Your task to perform on an android device: toggle pop-ups in chrome Image 0: 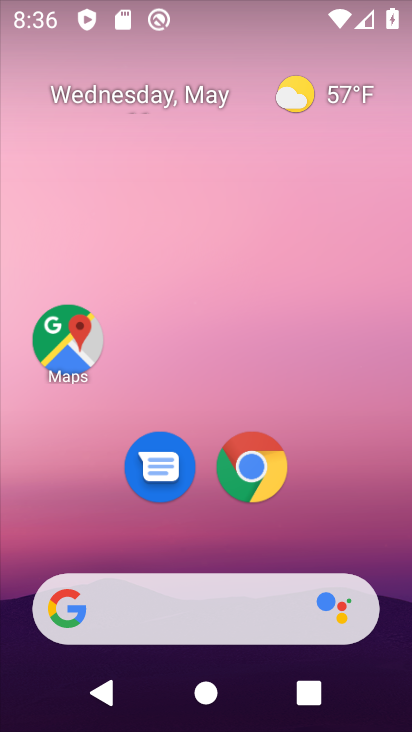
Step 0: drag from (407, 615) to (151, 175)
Your task to perform on an android device: toggle pop-ups in chrome Image 1: 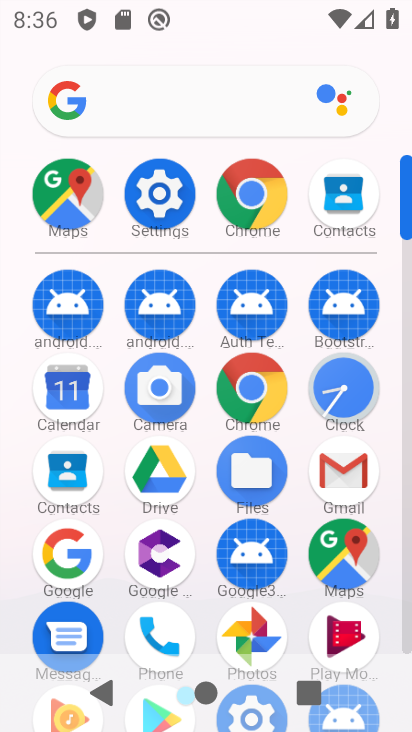
Step 1: click (238, 205)
Your task to perform on an android device: toggle pop-ups in chrome Image 2: 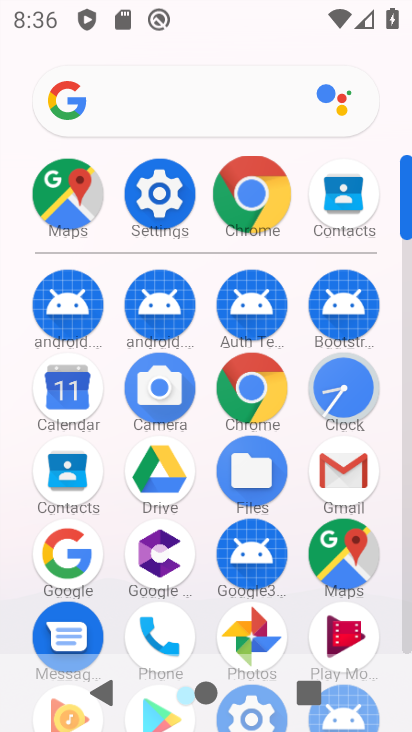
Step 2: click (236, 197)
Your task to perform on an android device: toggle pop-ups in chrome Image 3: 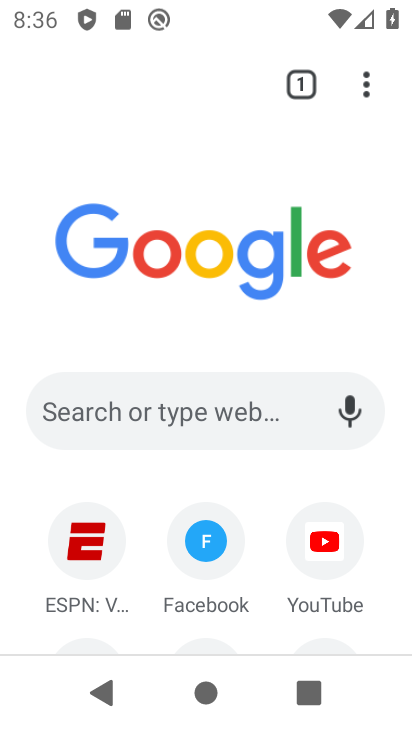
Step 3: drag from (359, 79) to (87, 515)
Your task to perform on an android device: toggle pop-ups in chrome Image 4: 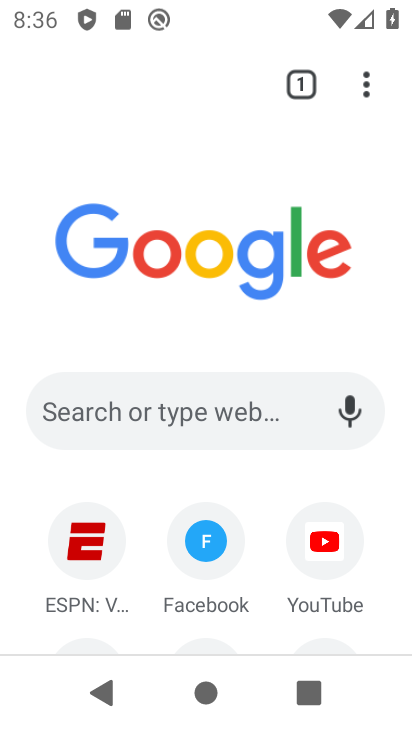
Step 4: click (103, 513)
Your task to perform on an android device: toggle pop-ups in chrome Image 5: 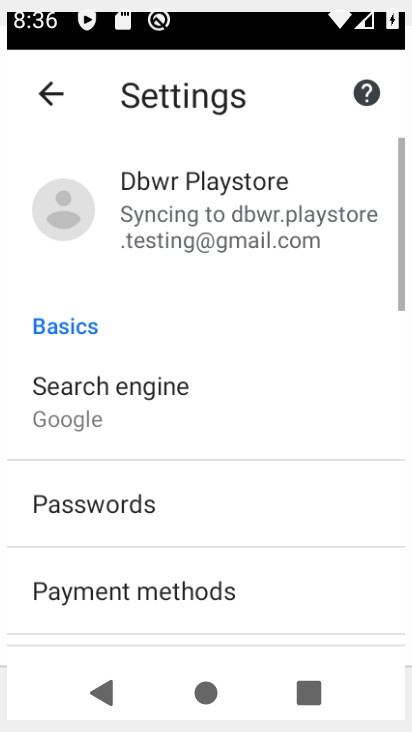
Step 5: click (104, 513)
Your task to perform on an android device: toggle pop-ups in chrome Image 6: 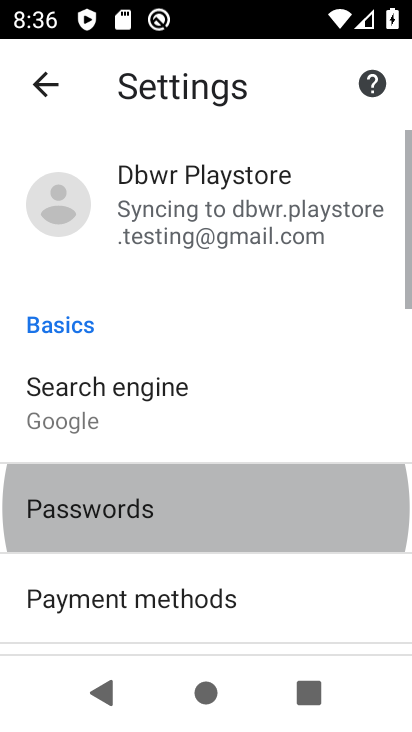
Step 6: click (104, 513)
Your task to perform on an android device: toggle pop-ups in chrome Image 7: 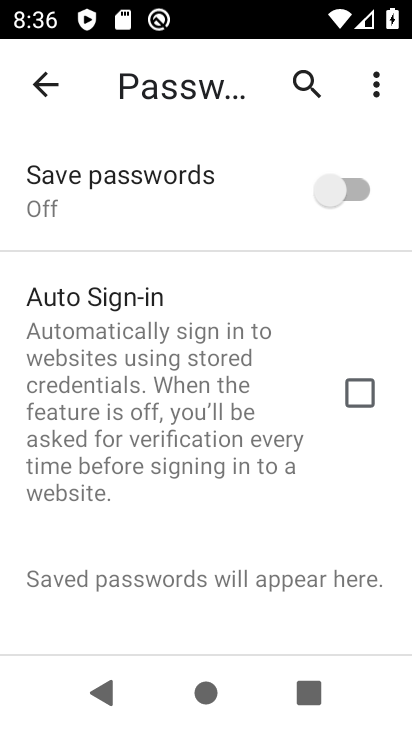
Step 7: click (40, 81)
Your task to perform on an android device: toggle pop-ups in chrome Image 8: 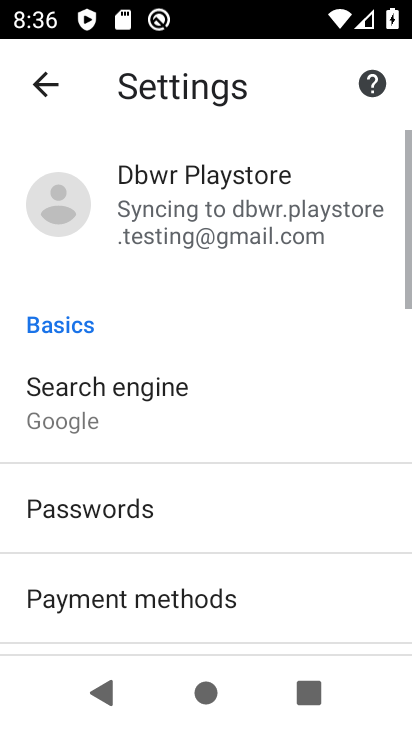
Step 8: drag from (198, 481) to (162, 138)
Your task to perform on an android device: toggle pop-ups in chrome Image 9: 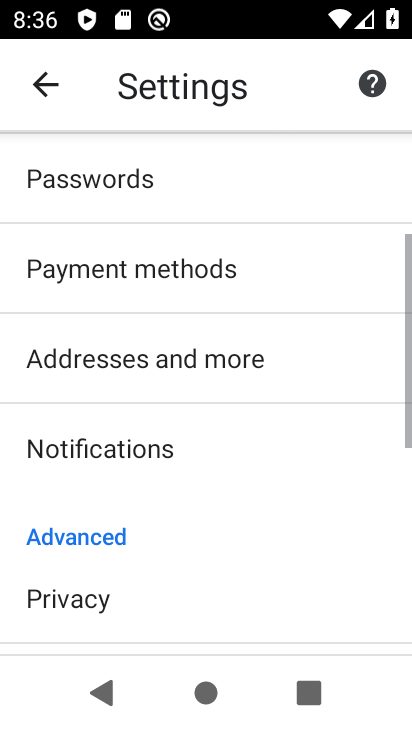
Step 9: drag from (230, 444) to (297, 212)
Your task to perform on an android device: toggle pop-ups in chrome Image 10: 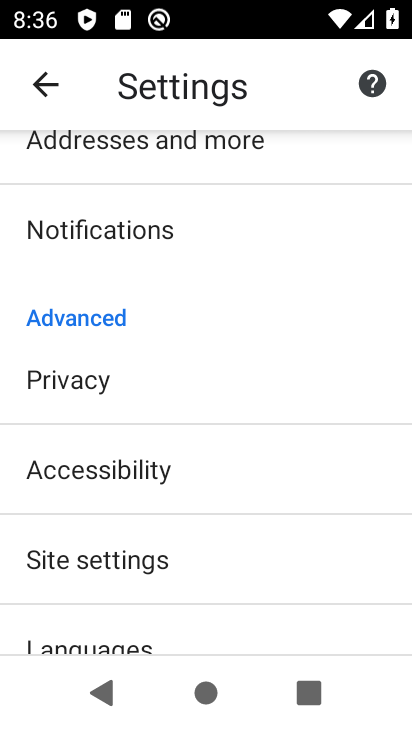
Step 10: drag from (137, 559) to (126, 327)
Your task to perform on an android device: toggle pop-ups in chrome Image 11: 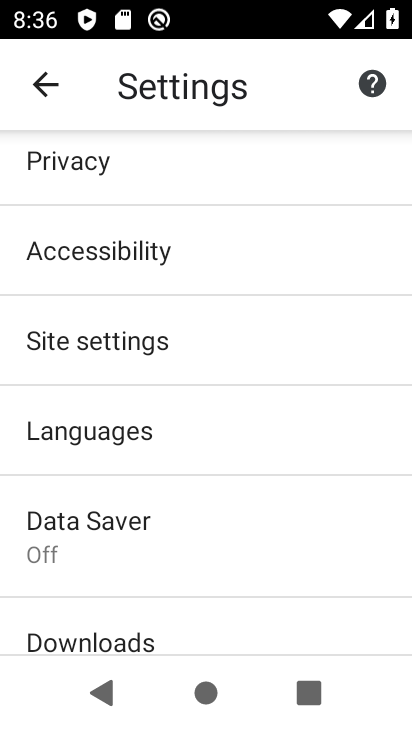
Step 11: drag from (129, 542) to (111, 176)
Your task to perform on an android device: toggle pop-ups in chrome Image 12: 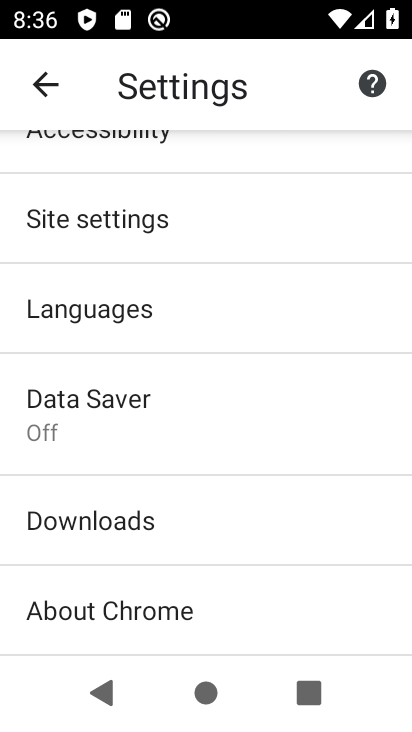
Step 12: click (75, 220)
Your task to perform on an android device: toggle pop-ups in chrome Image 13: 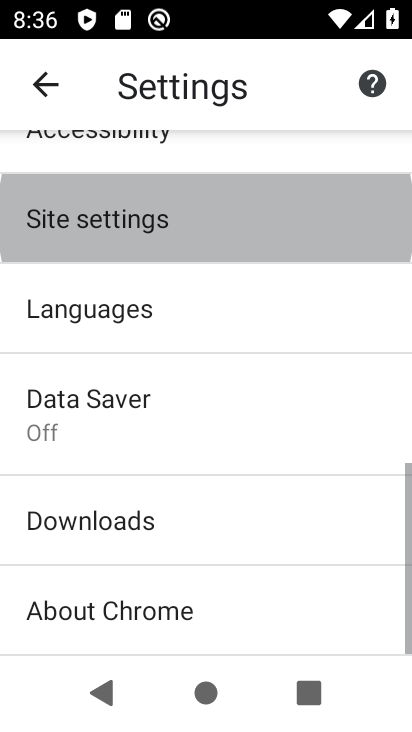
Step 13: click (76, 213)
Your task to perform on an android device: toggle pop-ups in chrome Image 14: 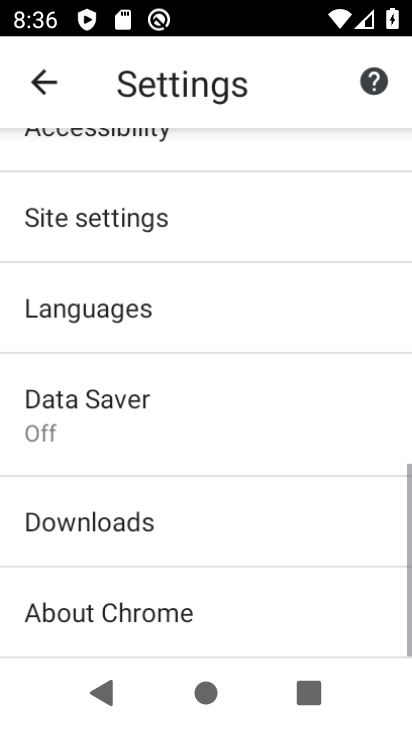
Step 14: click (76, 213)
Your task to perform on an android device: toggle pop-ups in chrome Image 15: 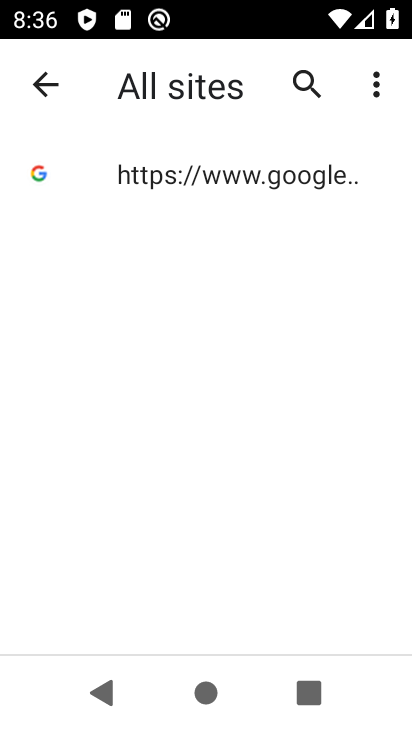
Step 15: click (43, 84)
Your task to perform on an android device: toggle pop-ups in chrome Image 16: 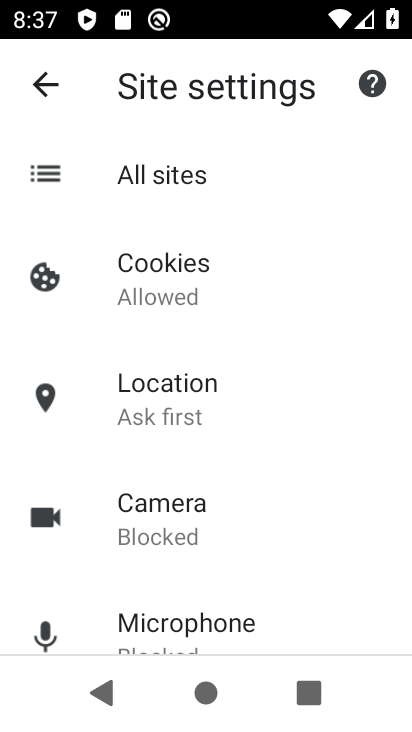
Step 16: drag from (248, 464) to (221, 89)
Your task to perform on an android device: toggle pop-ups in chrome Image 17: 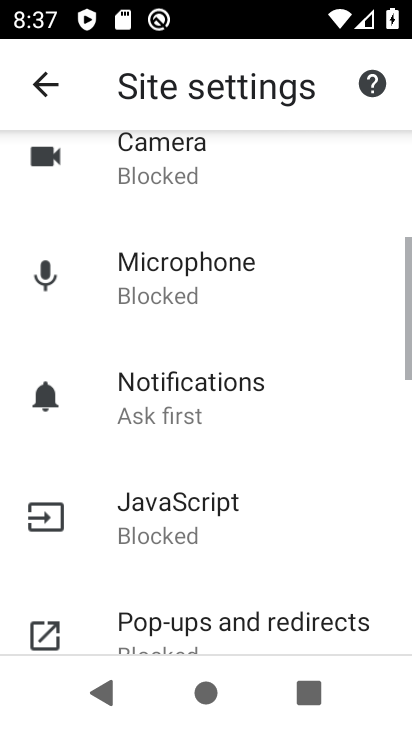
Step 17: drag from (280, 479) to (220, 167)
Your task to perform on an android device: toggle pop-ups in chrome Image 18: 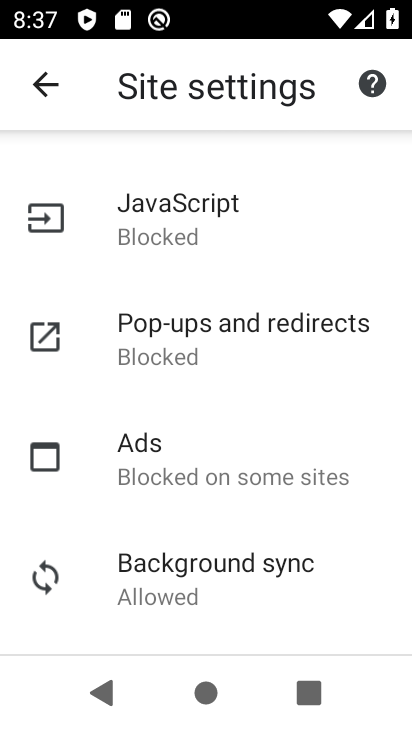
Step 18: drag from (221, 476) to (140, 220)
Your task to perform on an android device: toggle pop-ups in chrome Image 19: 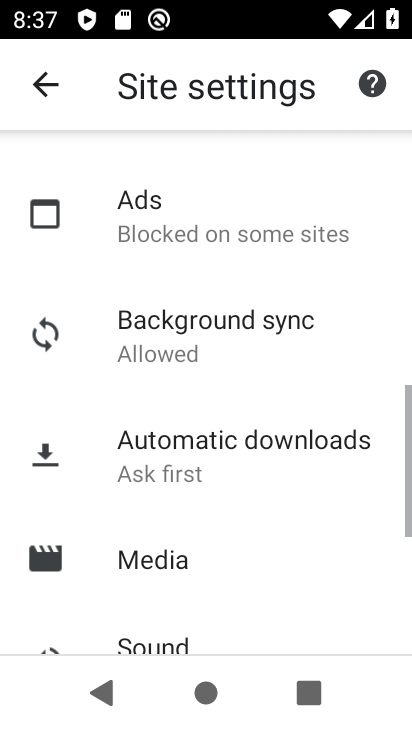
Step 19: drag from (187, 214) to (240, 600)
Your task to perform on an android device: toggle pop-ups in chrome Image 20: 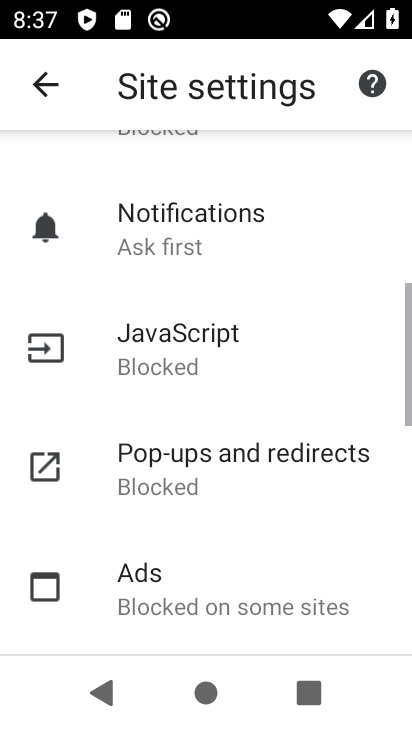
Step 20: drag from (171, 348) to (264, 596)
Your task to perform on an android device: toggle pop-ups in chrome Image 21: 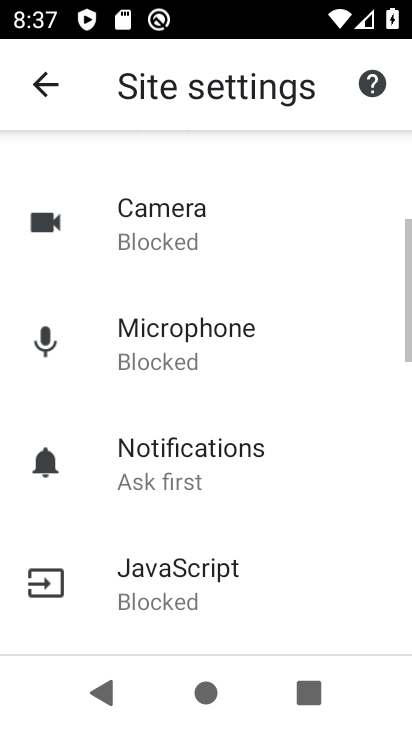
Step 21: drag from (213, 381) to (260, 593)
Your task to perform on an android device: toggle pop-ups in chrome Image 22: 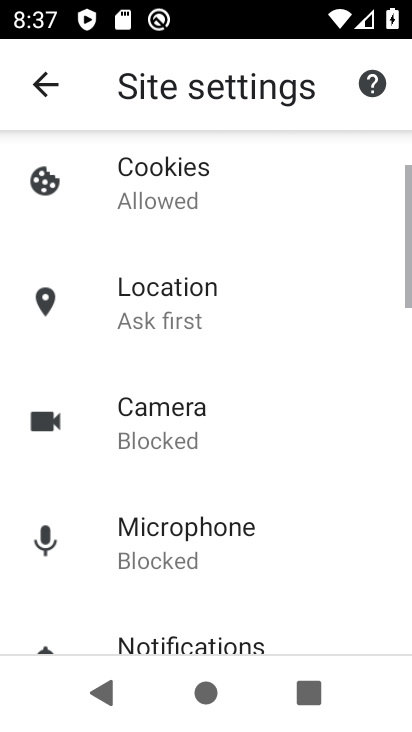
Step 22: drag from (258, 231) to (325, 444)
Your task to perform on an android device: toggle pop-ups in chrome Image 23: 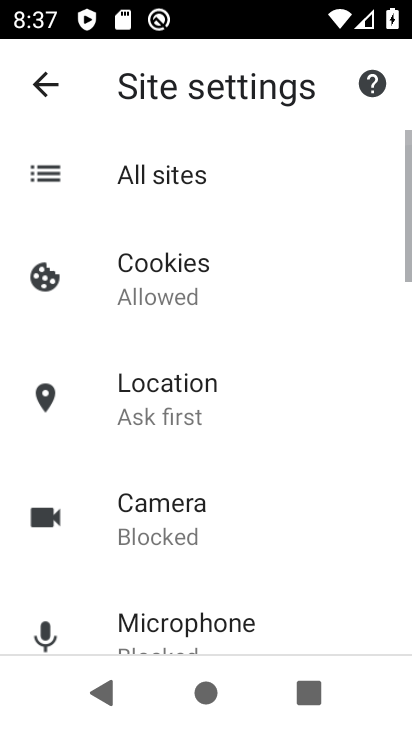
Step 23: click (332, 518)
Your task to perform on an android device: toggle pop-ups in chrome Image 24: 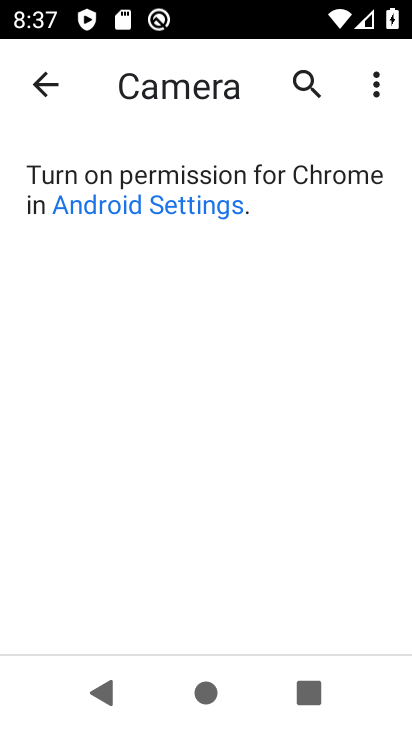
Step 24: click (38, 78)
Your task to perform on an android device: toggle pop-ups in chrome Image 25: 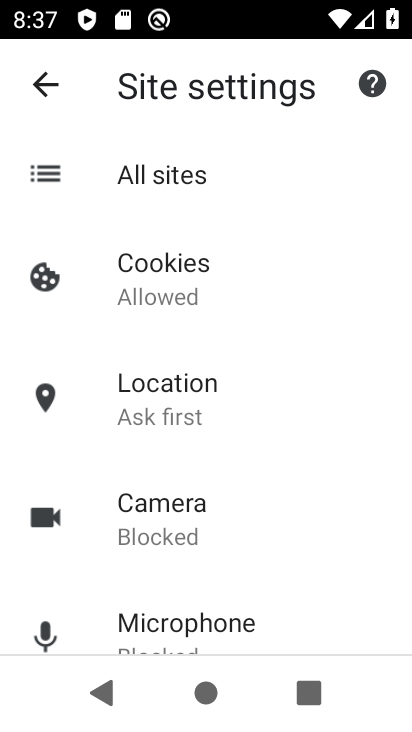
Step 25: drag from (210, 558) to (208, 434)
Your task to perform on an android device: toggle pop-ups in chrome Image 26: 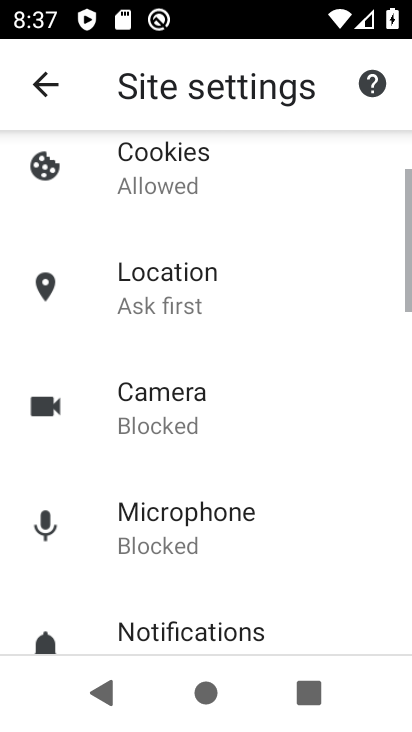
Step 26: drag from (253, 585) to (193, 260)
Your task to perform on an android device: toggle pop-ups in chrome Image 27: 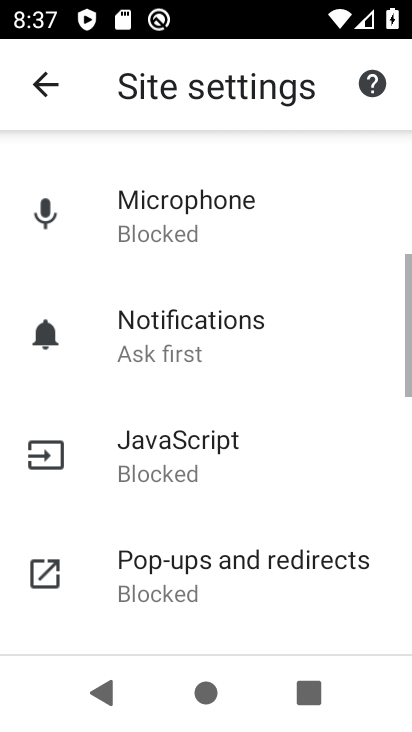
Step 27: drag from (258, 445) to (218, 162)
Your task to perform on an android device: toggle pop-ups in chrome Image 28: 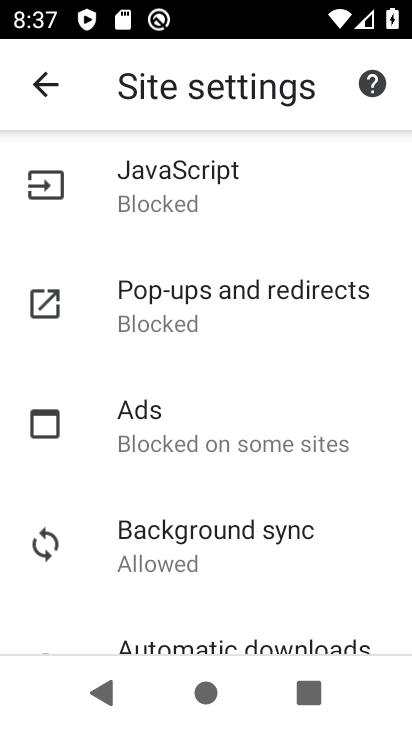
Step 28: click (141, 305)
Your task to perform on an android device: toggle pop-ups in chrome Image 29: 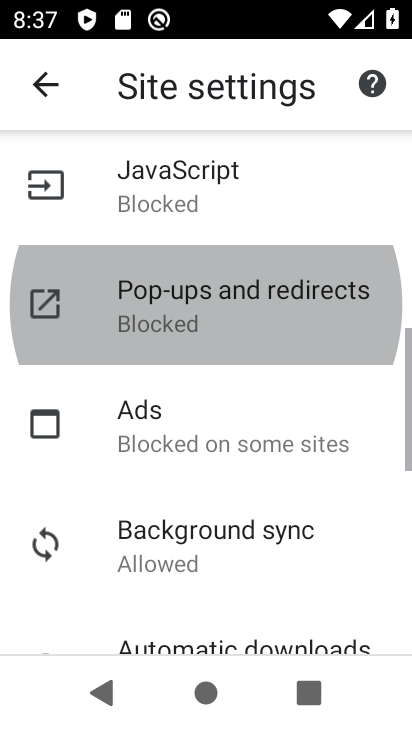
Step 29: click (144, 301)
Your task to perform on an android device: toggle pop-ups in chrome Image 30: 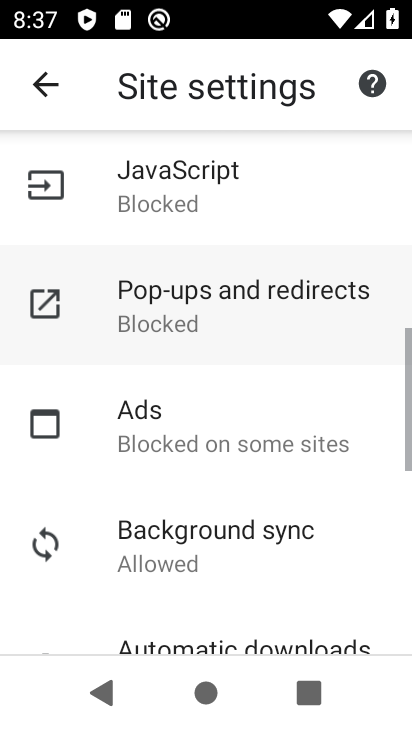
Step 30: click (144, 301)
Your task to perform on an android device: toggle pop-ups in chrome Image 31: 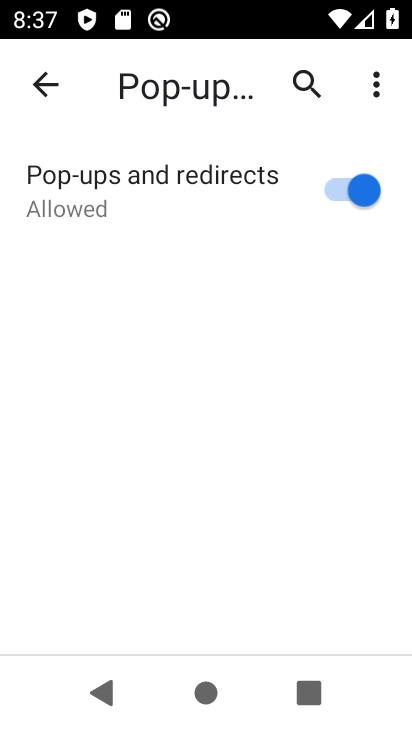
Step 31: click (354, 179)
Your task to perform on an android device: toggle pop-ups in chrome Image 32: 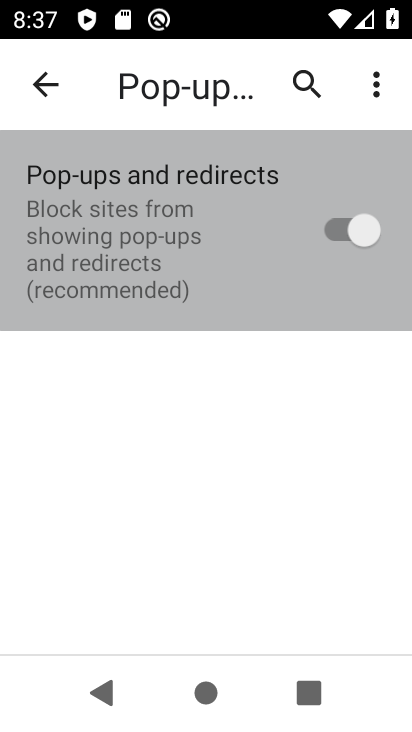
Step 32: click (326, 189)
Your task to perform on an android device: toggle pop-ups in chrome Image 33: 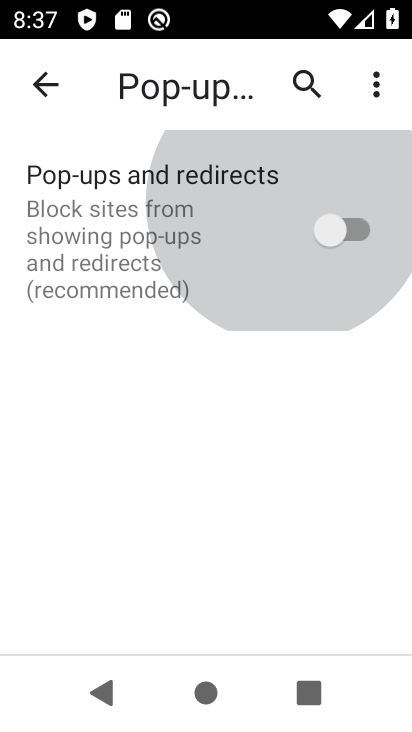
Step 33: click (326, 189)
Your task to perform on an android device: toggle pop-ups in chrome Image 34: 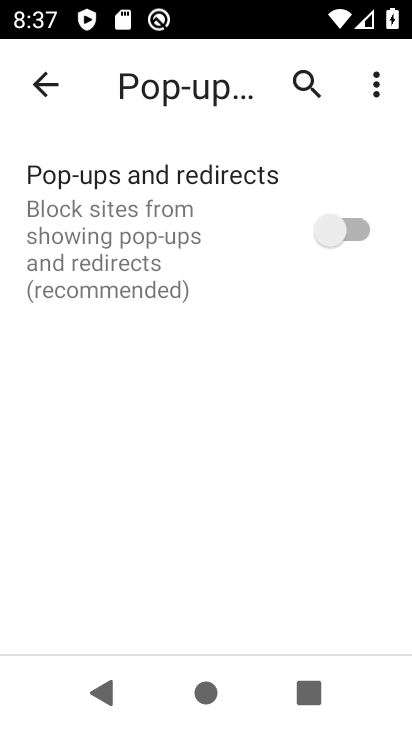
Step 34: click (326, 189)
Your task to perform on an android device: toggle pop-ups in chrome Image 35: 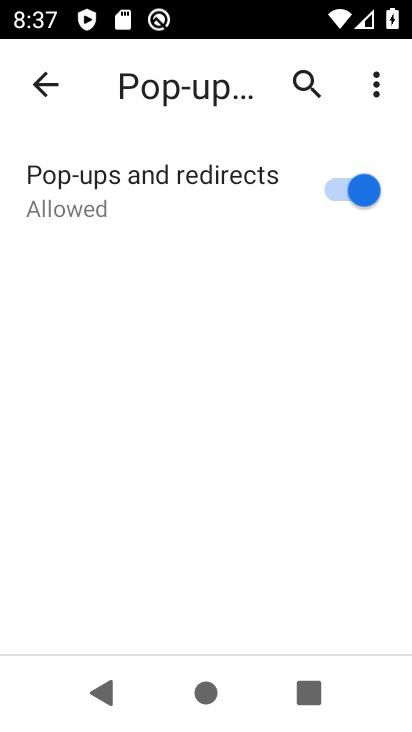
Step 35: click (341, 231)
Your task to perform on an android device: toggle pop-ups in chrome Image 36: 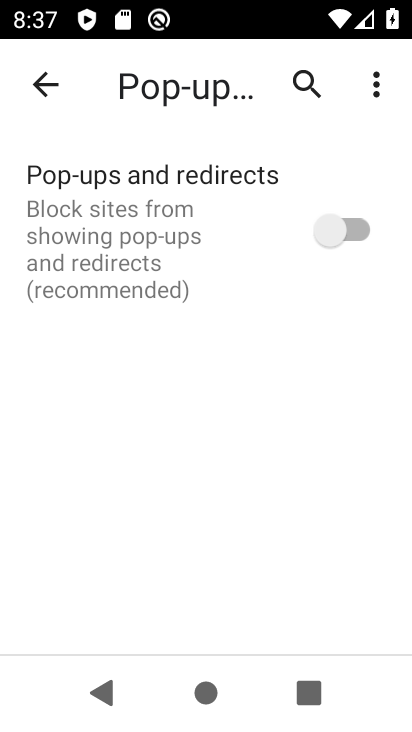
Step 36: click (319, 226)
Your task to perform on an android device: toggle pop-ups in chrome Image 37: 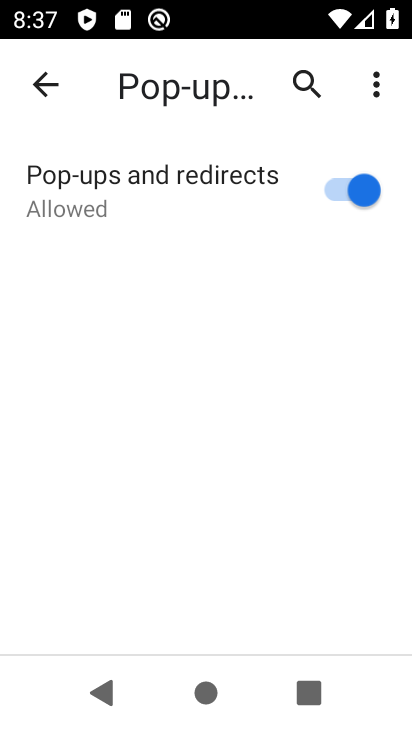
Step 37: task complete